Your task to perform on an android device: add a label to a message in the gmail app Image 0: 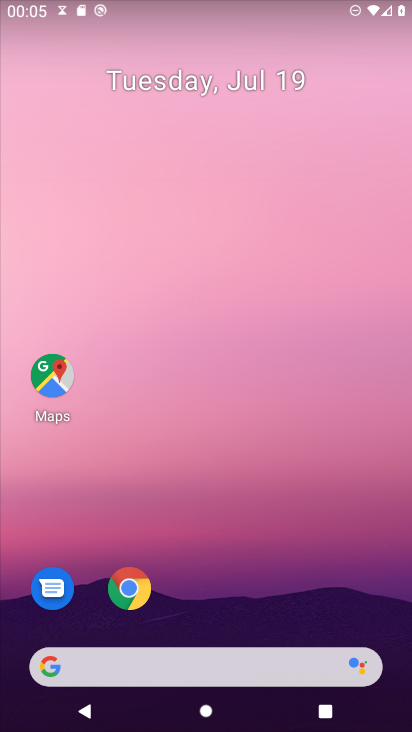
Step 0: press home button
Your task to perform on an android device: add a label to a message in the gmail app Image 1: 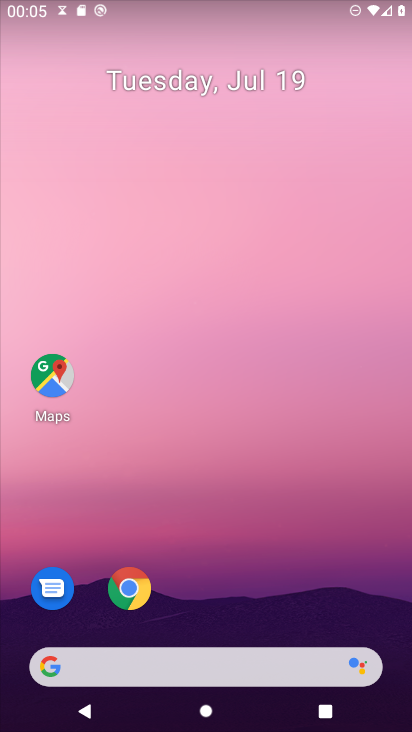
Step 1: drag from (307, 602) to (315, 69)
Your task to perform on an android device: add a label to a message in the gmail app Image 2: 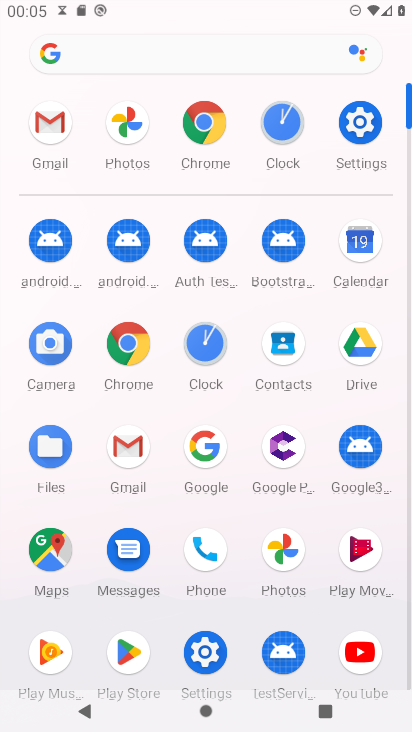
Step 2: click (52, 127)
Your task to perform on an android device: add a label to a message in the gmail app Image 3: 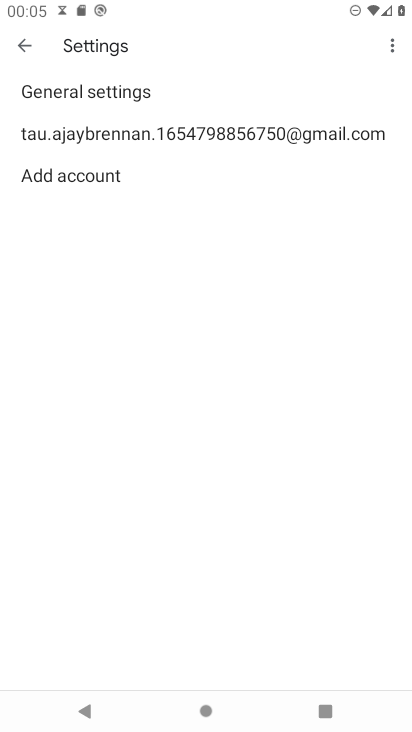
Step 3: click (71, 144)
Your task to perform on an android device: add a label to a message in the gmail app Image 4: 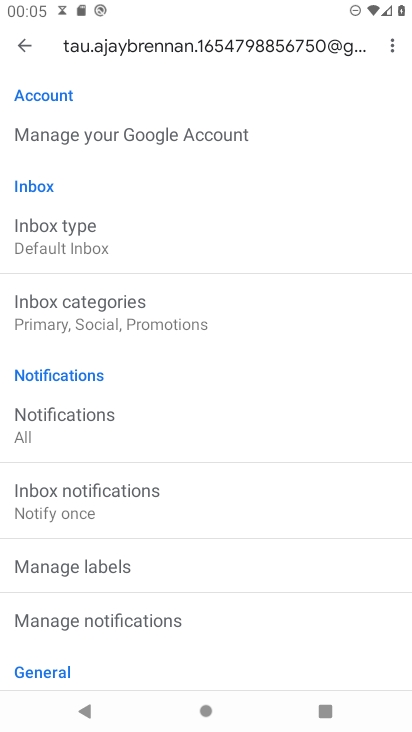
Step 4: click (25, 43)
Your task to perform on an android device: add a label to a message in the gmail app Image 5: 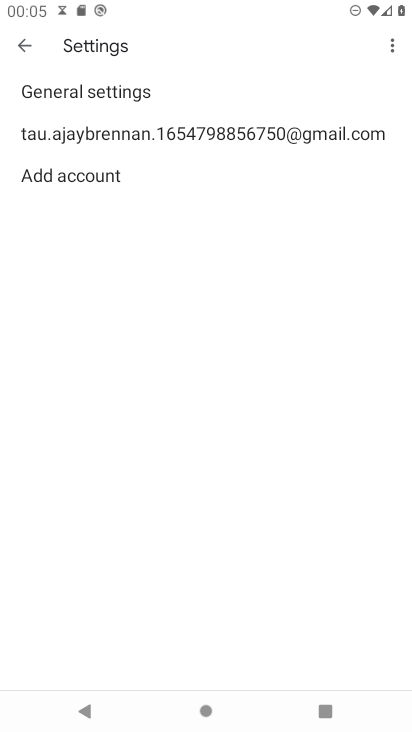
Step 5: click (25, 43)
Your task to perform on an android device: add a label to a message in the gmail app Image 6: 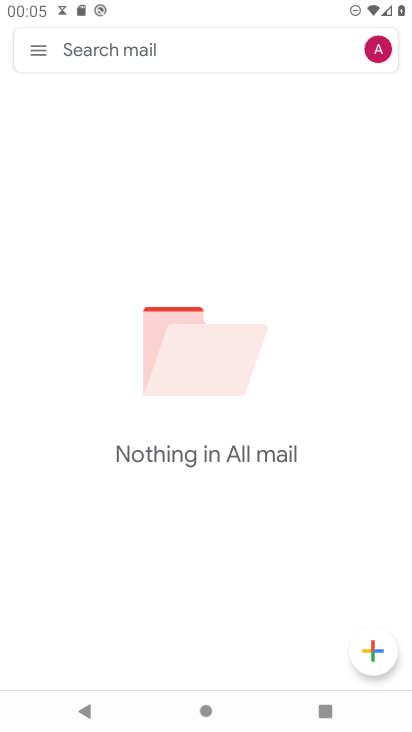
Step 6: click (31, 45)
Your task to perform on an android device: add a label to a message in the gmail app Image 7: 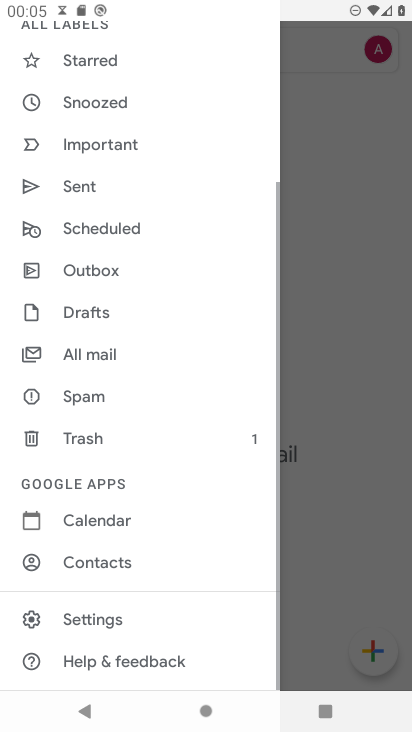
Step 7: click (104, 343)
Your task to perform on an android device: add a label to a message in the gmail app Image 8: 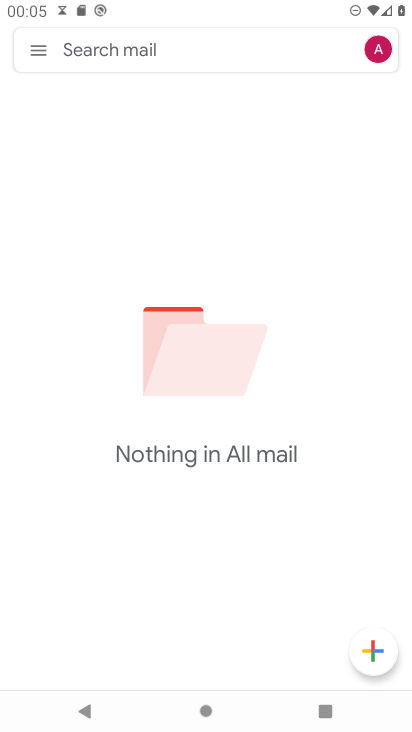
Step 8: task complete